Your task to perform on an android device: turn notification dots off Image 0: 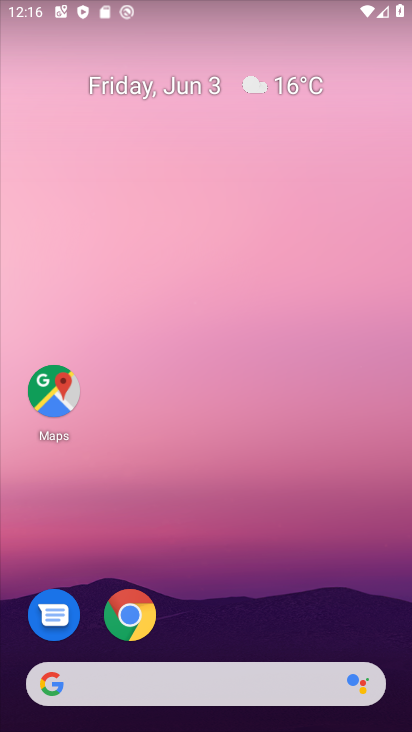
Step 0: drag from (211, 597) to (221, 330)
Your task to perform on an android device: turn notification dots off Image 1: 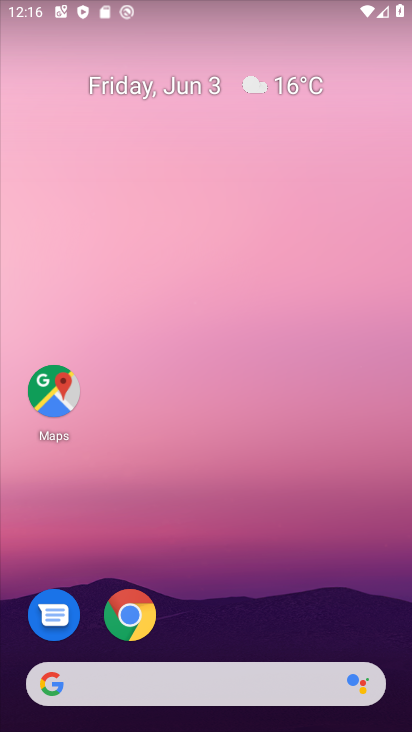
Step 1: drag from (226, 613) to (216, 356)
Your task to perform on an android device: turn notification dots off Image 2: 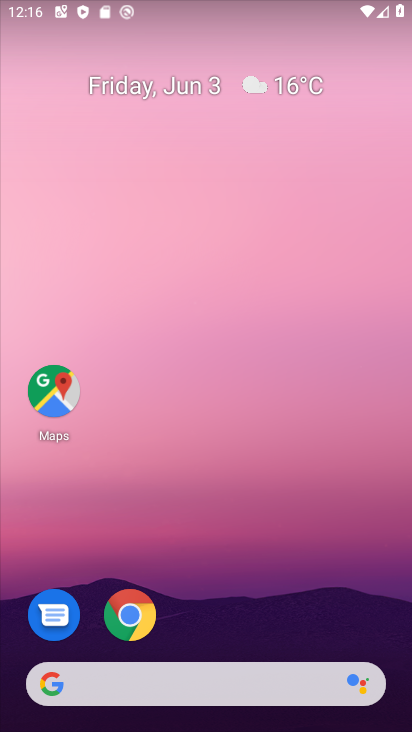
Step 2: drag from (242, 606) to (216, 282)
Your task to perform on an android device: turn notification dots off Image 3: 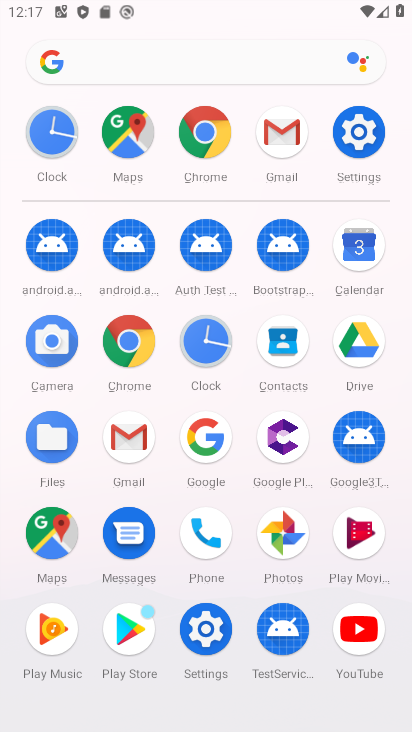
Step 3: click (371, 121)
Your task to perform on an android device: turn notification dots off Image 4: 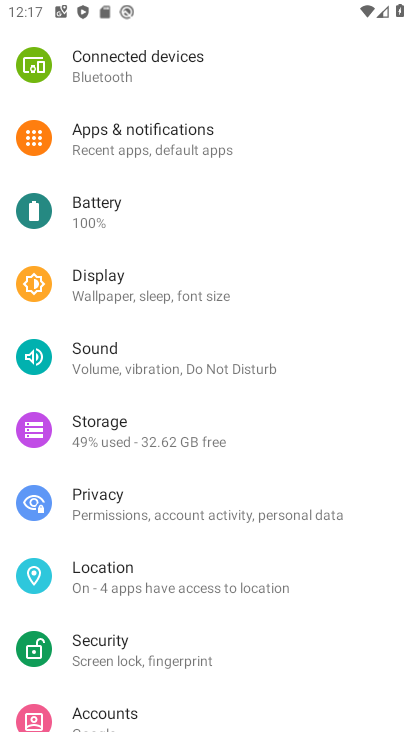
Step 4: drag from (195, 107) to (210, 589)
Your task to perform on an android device: turn notification dots off Image 5: 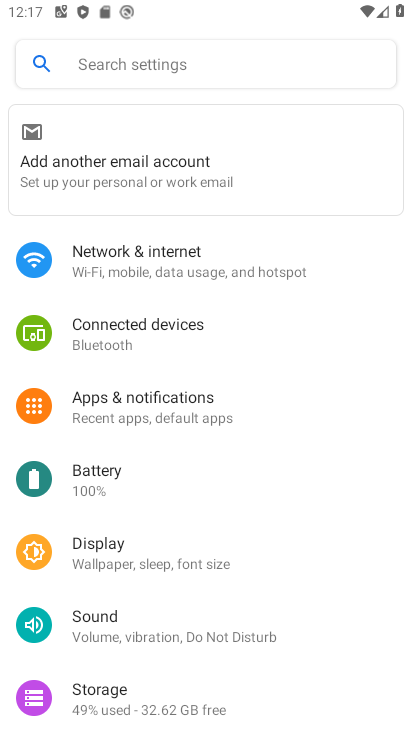
Step 5: click (161, 60)
Your task to perform on an android device: turn notification dots off Image 6: 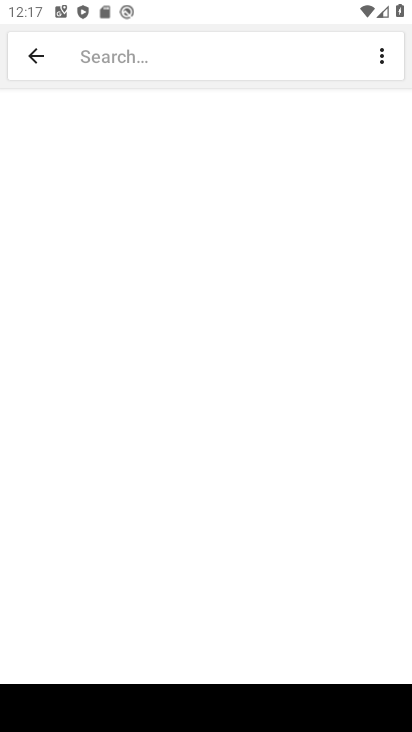
Step 6: type "notification dots"
Your task to perform on an android device: turn notification dots off Image 7: 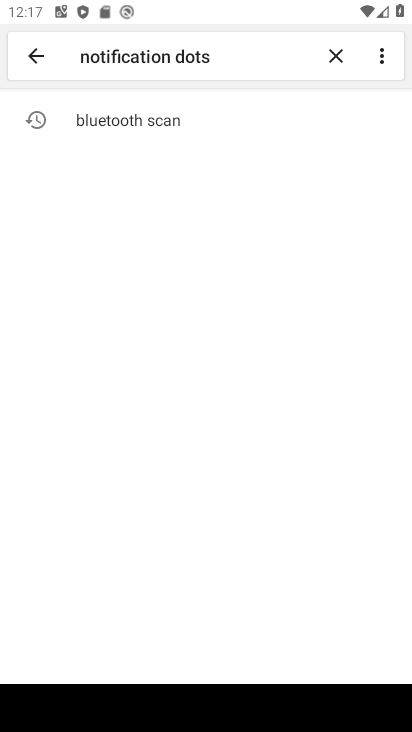
Step 7: click (171, 123)
Your task to perform on an android device: turn notification dots off Image 8: 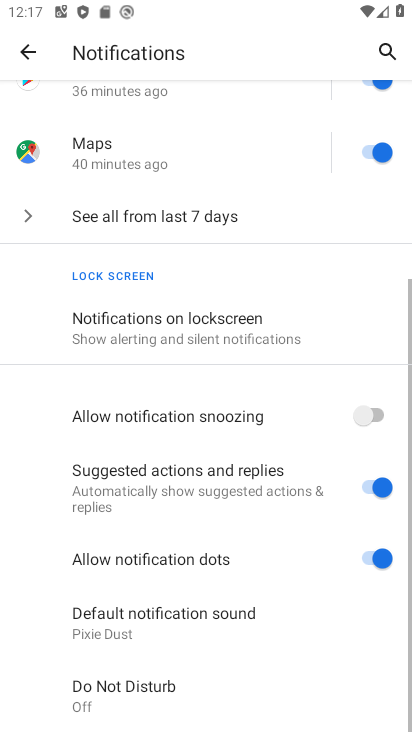
Step 8: click (171, 123)
Your task to perform on an android device: turn notification dots off Image 9: 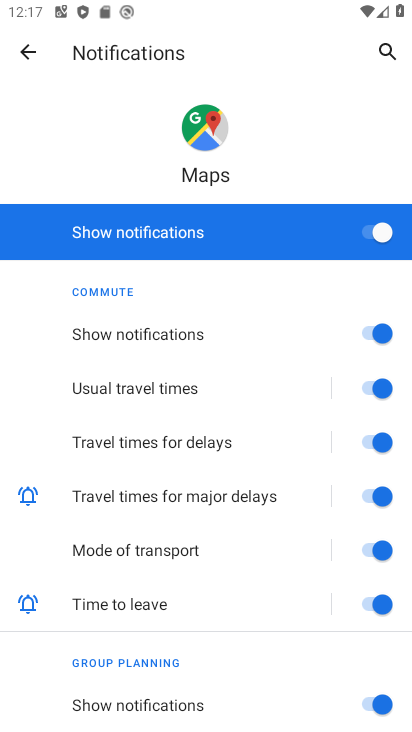
Step 9: click (368, 235)
Your task to perform on an android device: turn notification dots off Image 10: 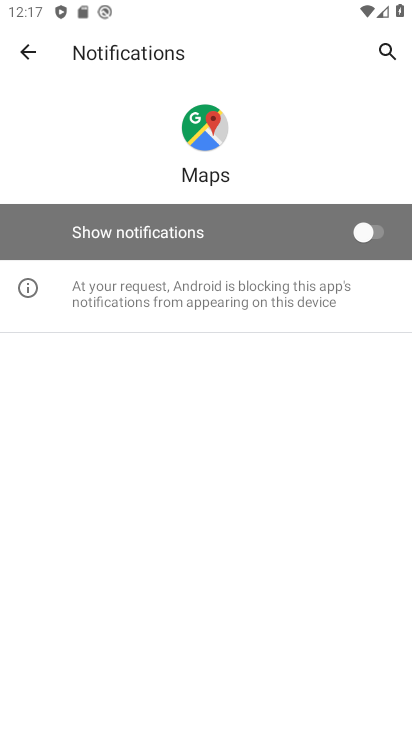
Step 10: click (15, 58)
Your task to perform on an android device: turn notification dots off Image 11: 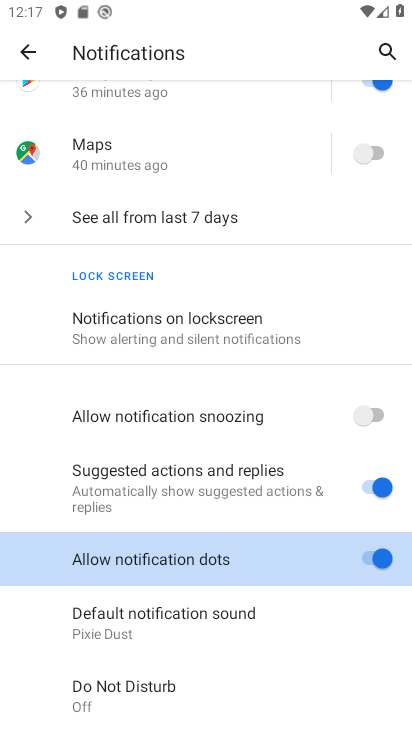
Step 11: click (382, 557)
Your task to perform on an android device: turn notification dots off Image 12: 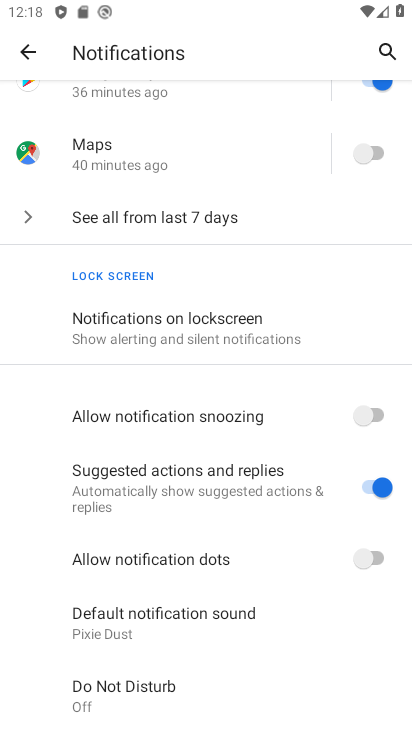
Step 12: task complete